Your task to perform on an android device: see creations saved in the google photos Image 0: 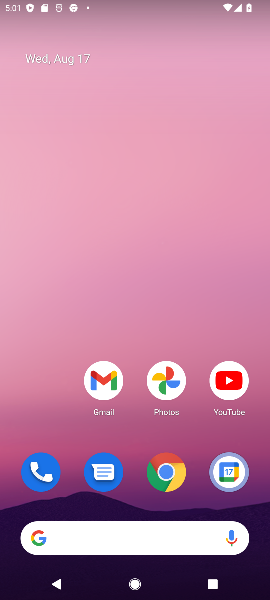
Step 0: click (159, 372)
Your task to perform on an android device: see creations saved in the google photos Image 1: 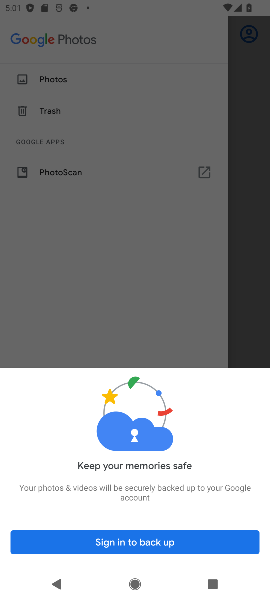
Step 1: click (136, 317)
Your task to perform on an android device: see creations saved in the google photos Image 2: 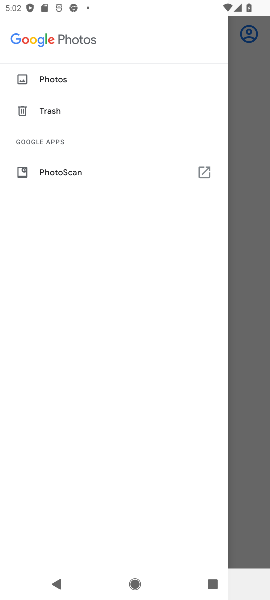
Step 2: click (62, 83)
Your task to perform on an android device: see creations saved in the google photos Image 3: 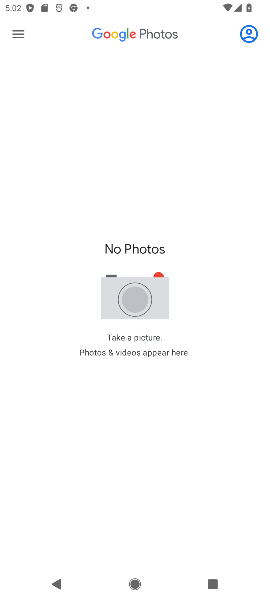
Step 3: click (124, 28)
Your task to perform on an android device: see creations saved in the google photos Image 4: 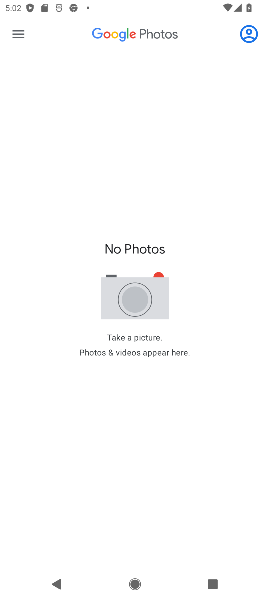
Step 4: click (118, 39)
Your task to perform on an android device: see creations saved in the google photos Image 5: 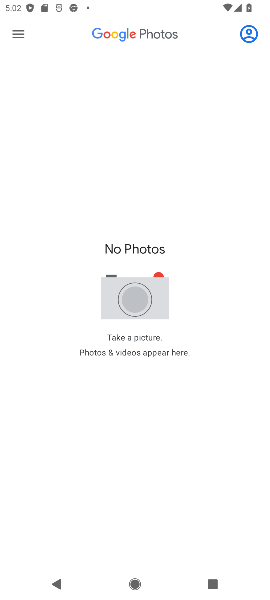
Step 5: click (110, 46)
Your task to perform on an android device: see creations saved in the google photos Image 6: 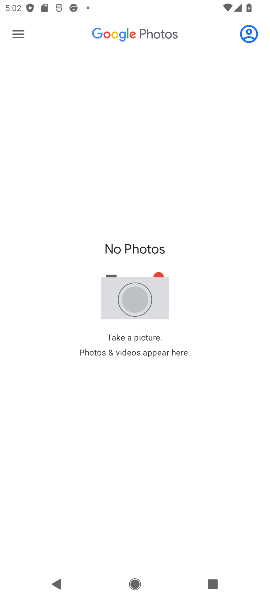
Step 6: click (96, 43)
Your task to perform on an android device: see creations saved in the google photos Image 7: 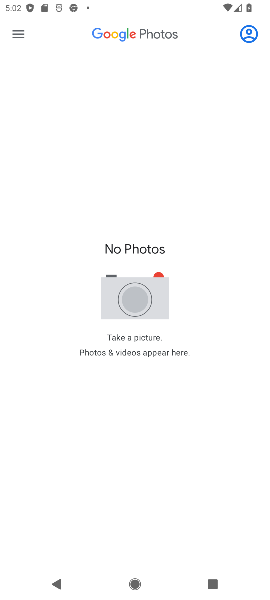
Step 7: task complete